Your task to perform on an android device: Do I have any events tomorrow? Image 0: 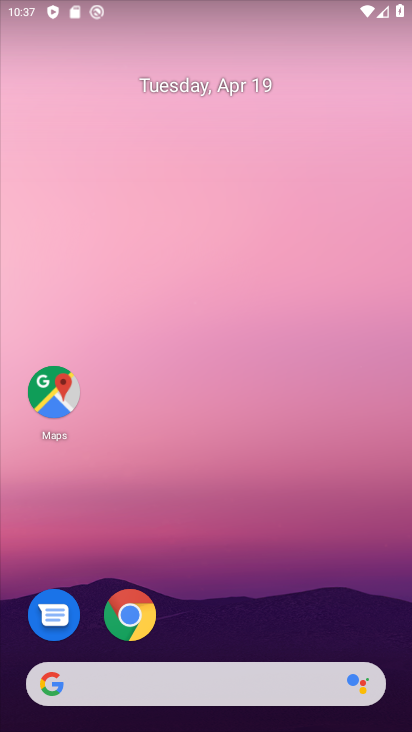
Step 0: drag from (221, 596) to (252, 112)
Your task to perform on an android device: Do I have any events tomorrow? Image 1: 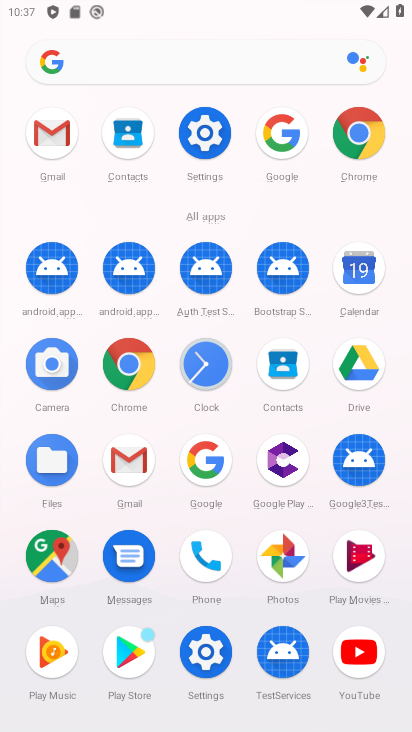
Step 1: click (356, 268)
Your task to perform on an android device: Do I have any events tomorrow? Image 2: 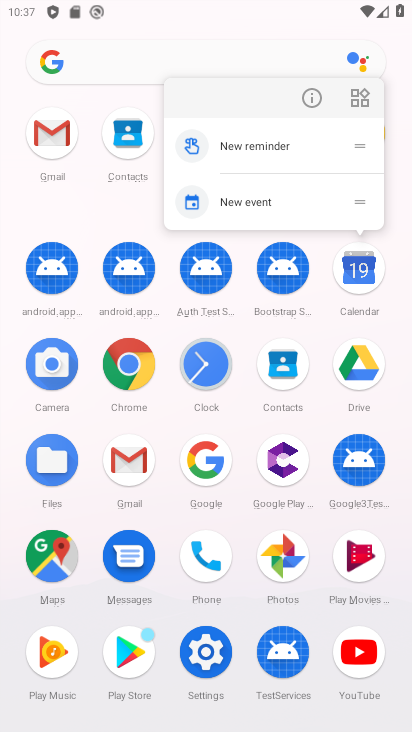
Step 2: click (356, 269)
Your task to perform on an android device: Do I have any events tomorrow? Image 3: 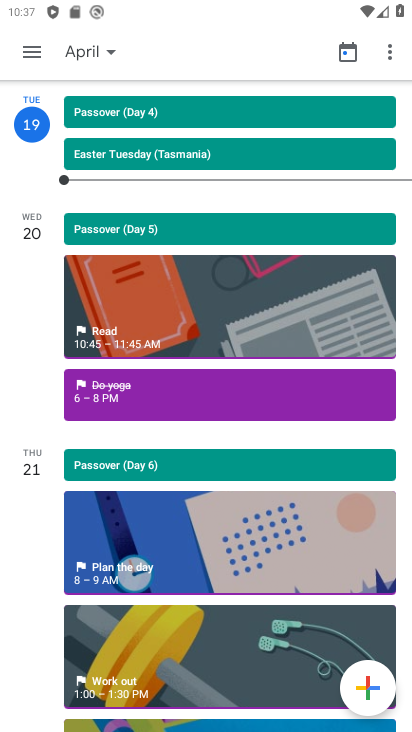
Step 3: click (106, 53)
Your task to perform on an android device: Do I have any events tomorrow? Image 4: 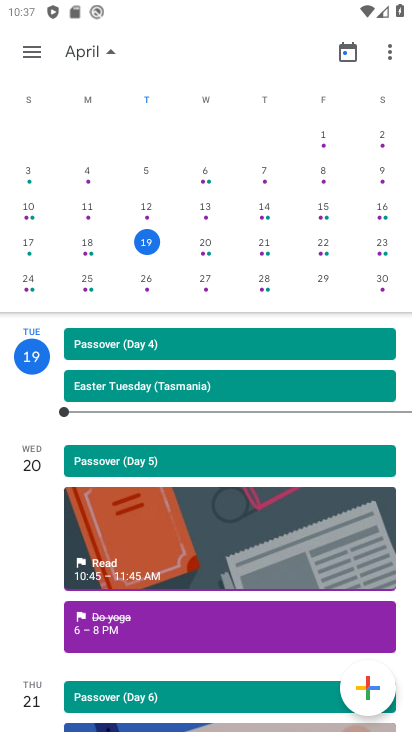
Step 4: click (200, 247)
Your task to perform on an android device: Do I have any events tomorrow? Image 5: 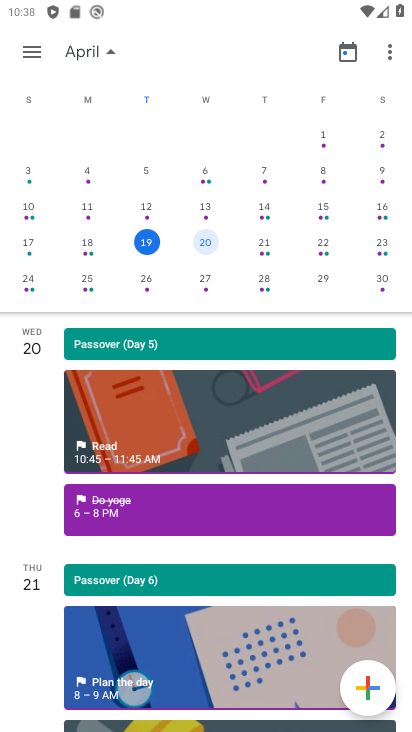
Step 5: task complete